Your task to perform on an android device: Open maps Image 0: 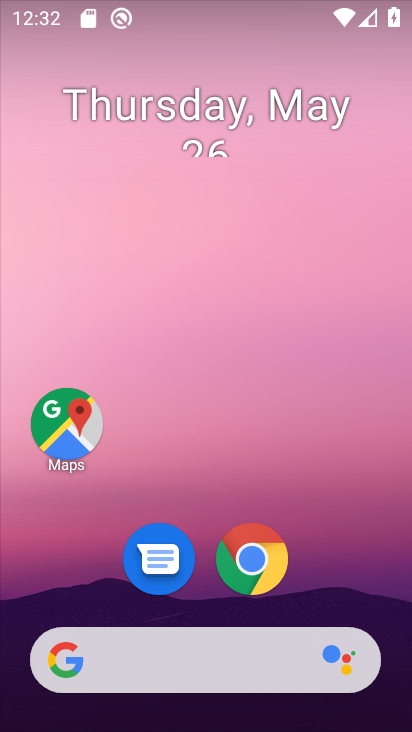
Step 0: press home button
Your task to perform on an android device: Open maps Image 1: 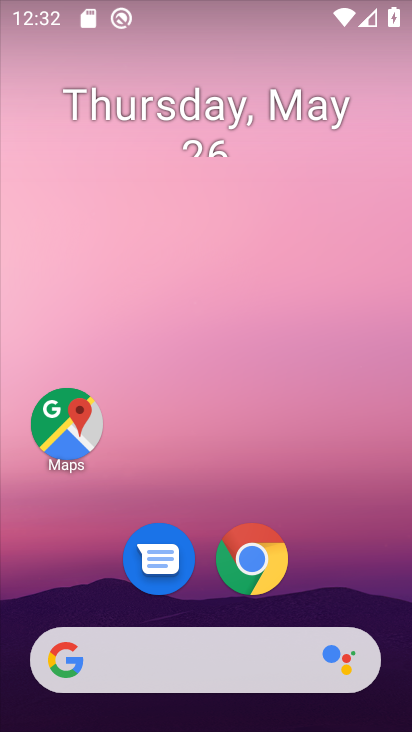
Step 1: click (71, 425)
Your task to perform on an android device: Open maps Image 2: 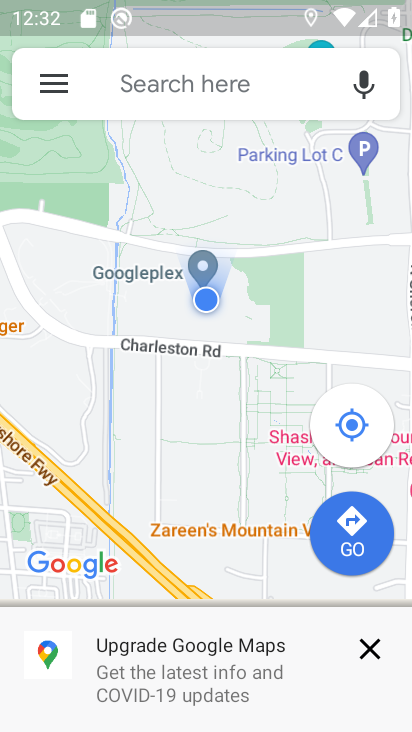
Step 2: task complete